Your task to perform on an android device: Go to Wikipedia Image 0: 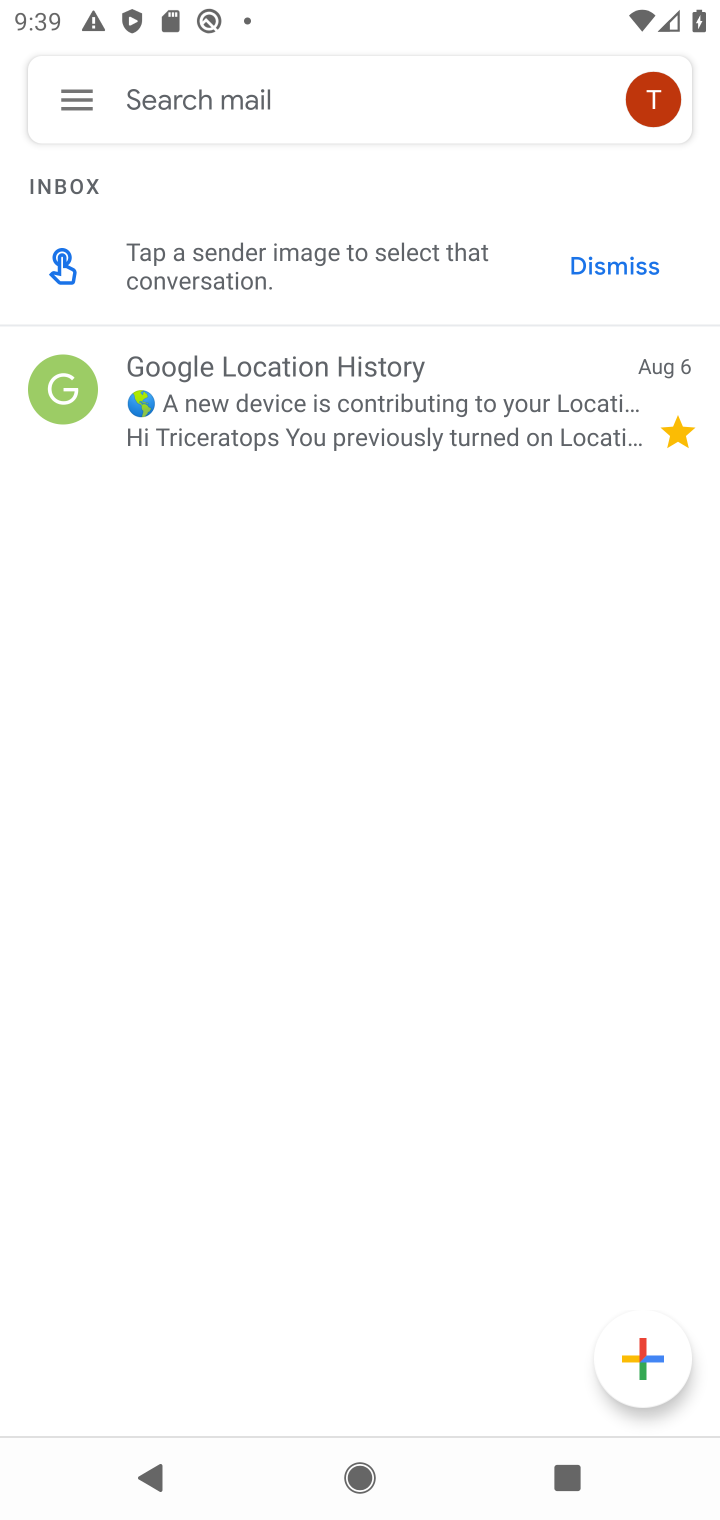
Step 0: press home button
Your task to perform on an android device: Go to Wikipedia Image 1: 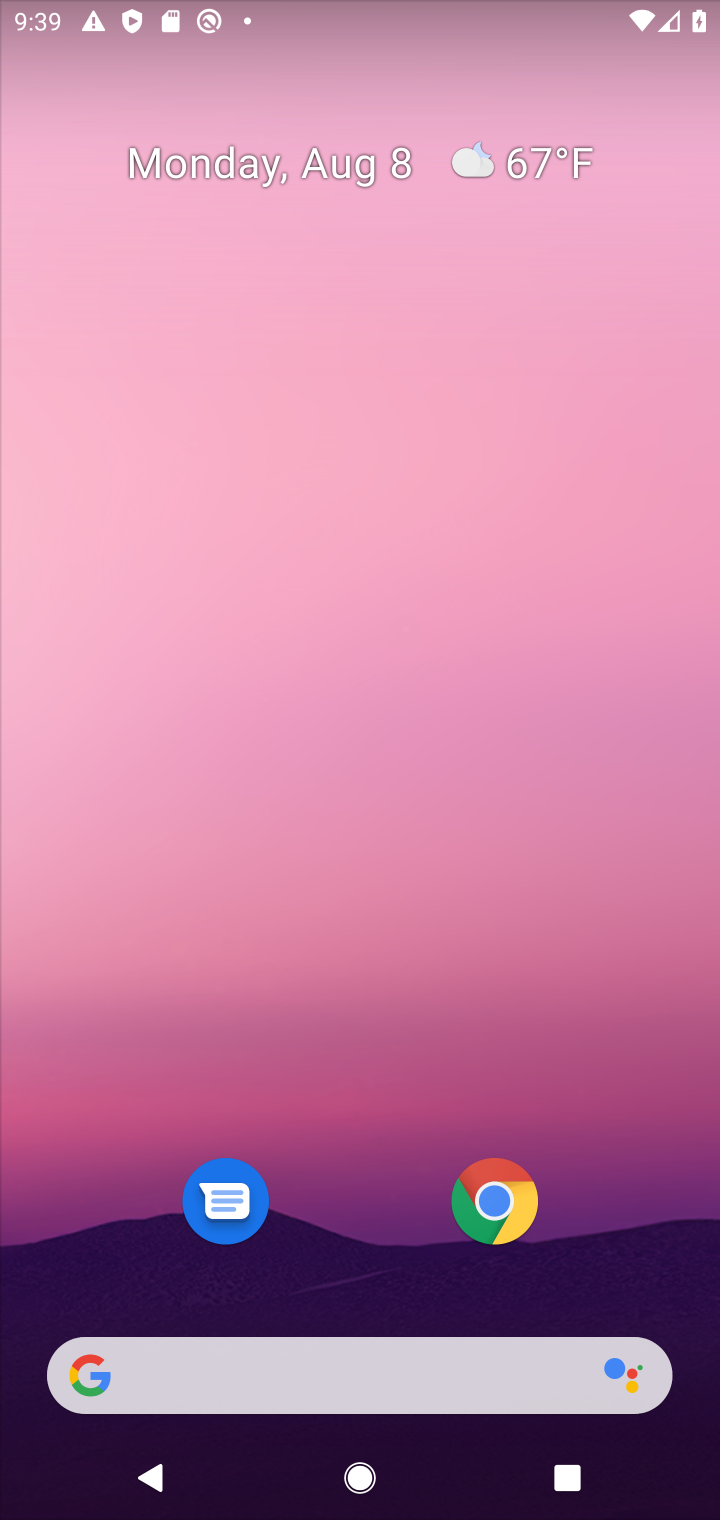
Step 1: drag from (360, 1234) to (358, 457)
Your task to perform on an android device: Go to Wikipedia Image 2: 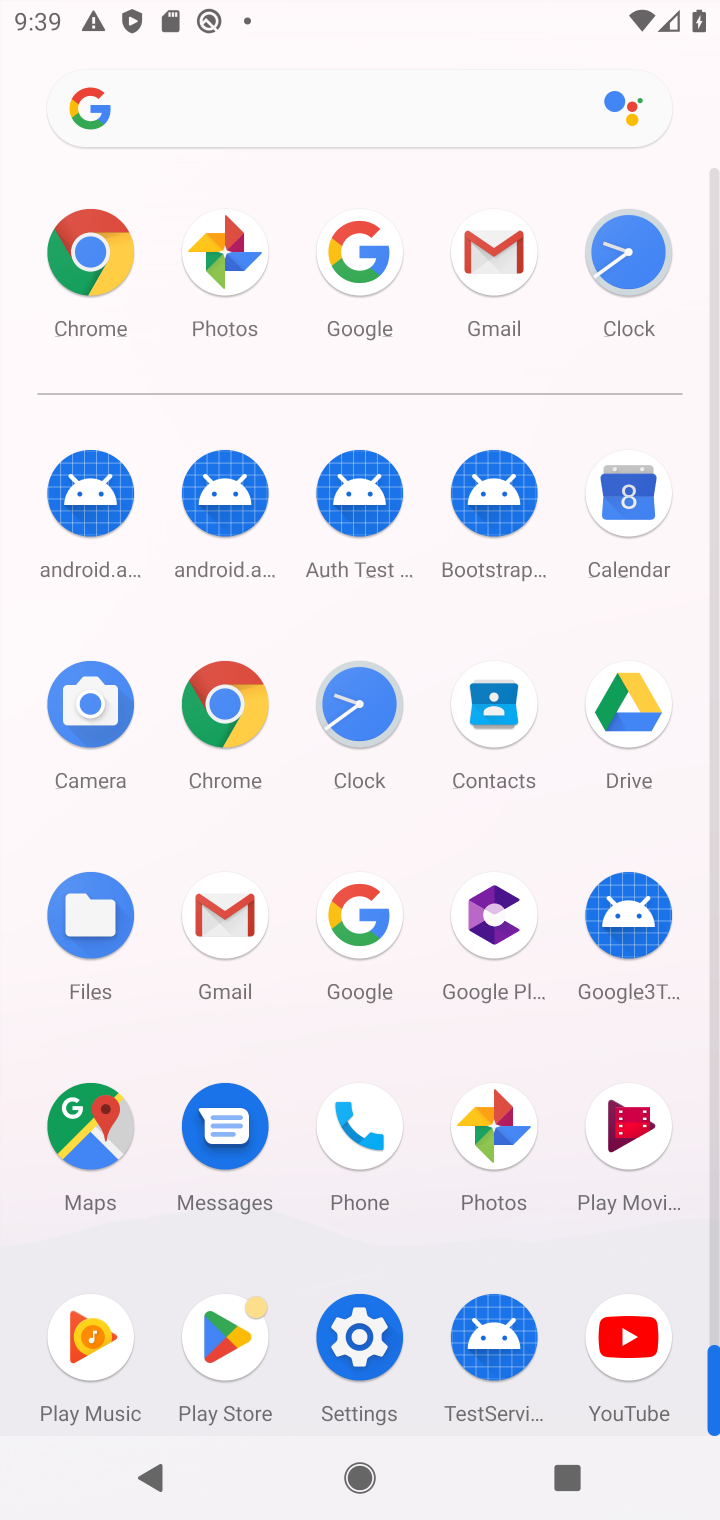
Step 2: click (232, 705)
Your task to perform on an android device: Go to Wikipedia Image 3: 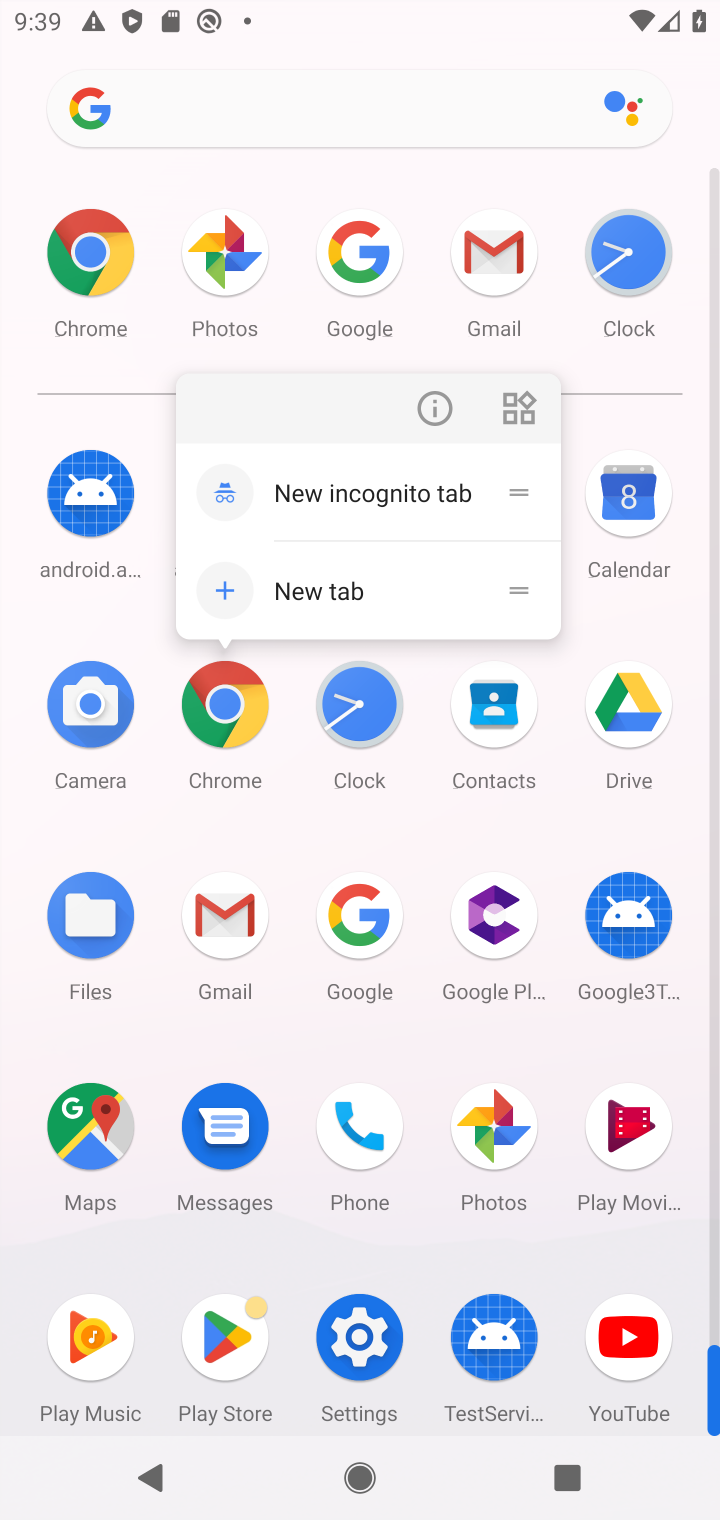
Step 3: click (232, 705)
Your task to perform on an android device: Go to Wikipedia Image 4: 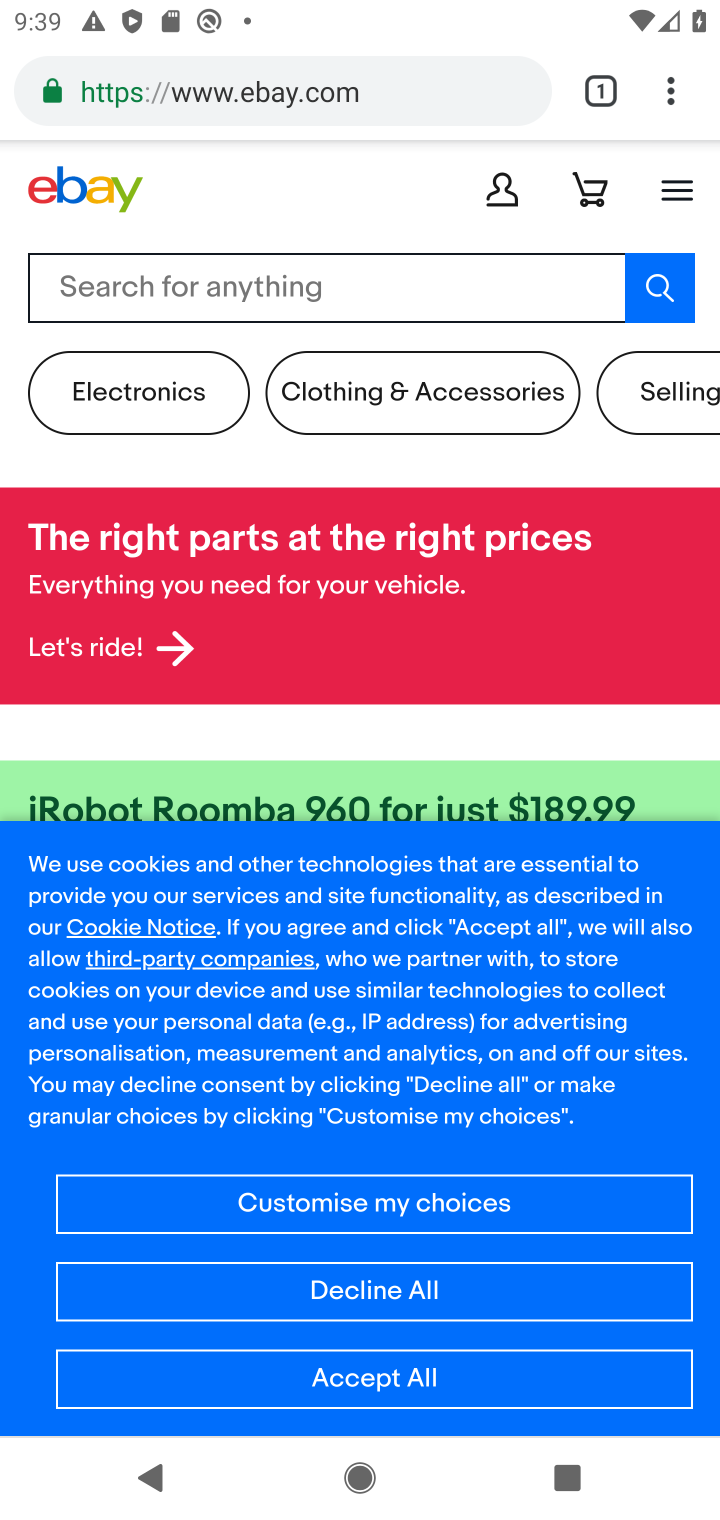
Step 4: click (402, 84)
Your task to perform on an android device: Go to Wikipedia Image 5: 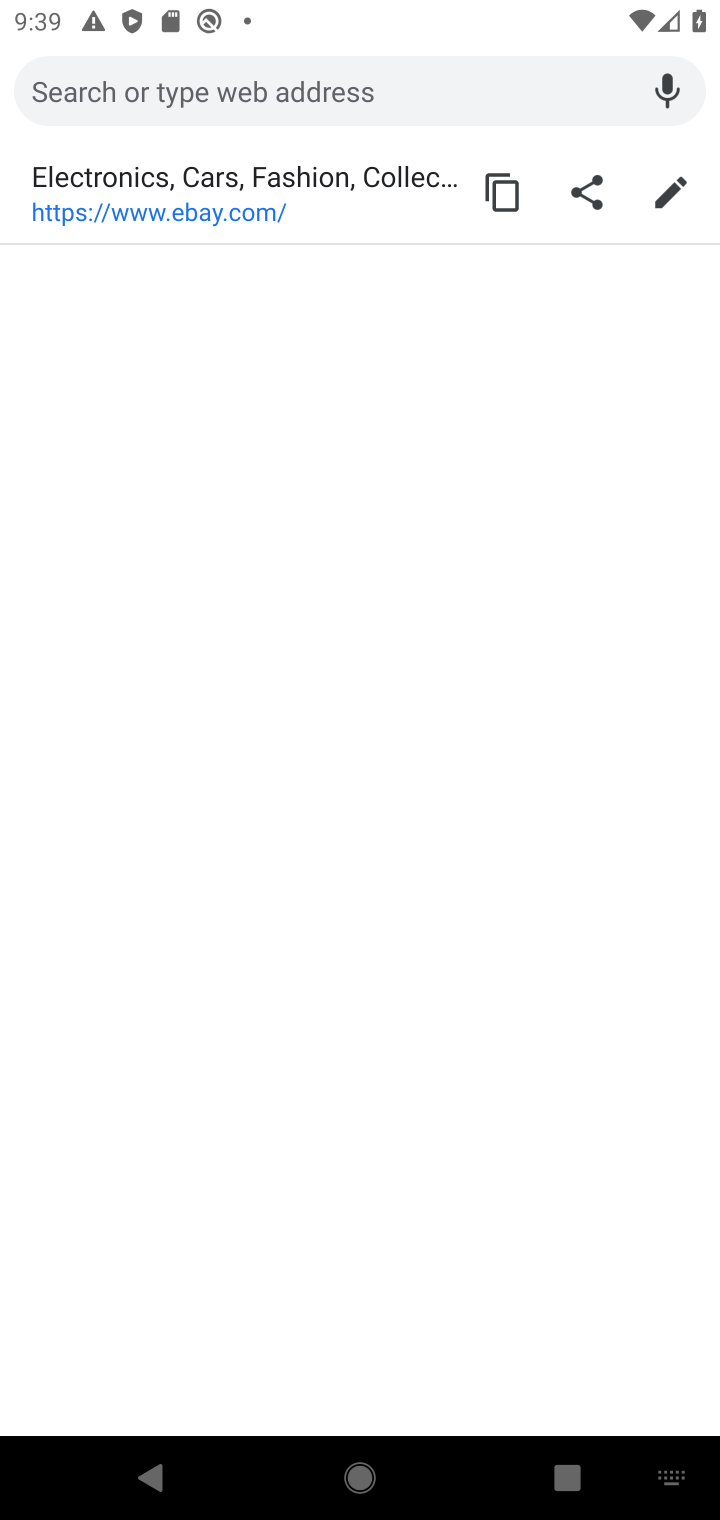
Step 5: type "wikipedia"
Your task to perform on an android device: Go to Wikipedia Image 6: 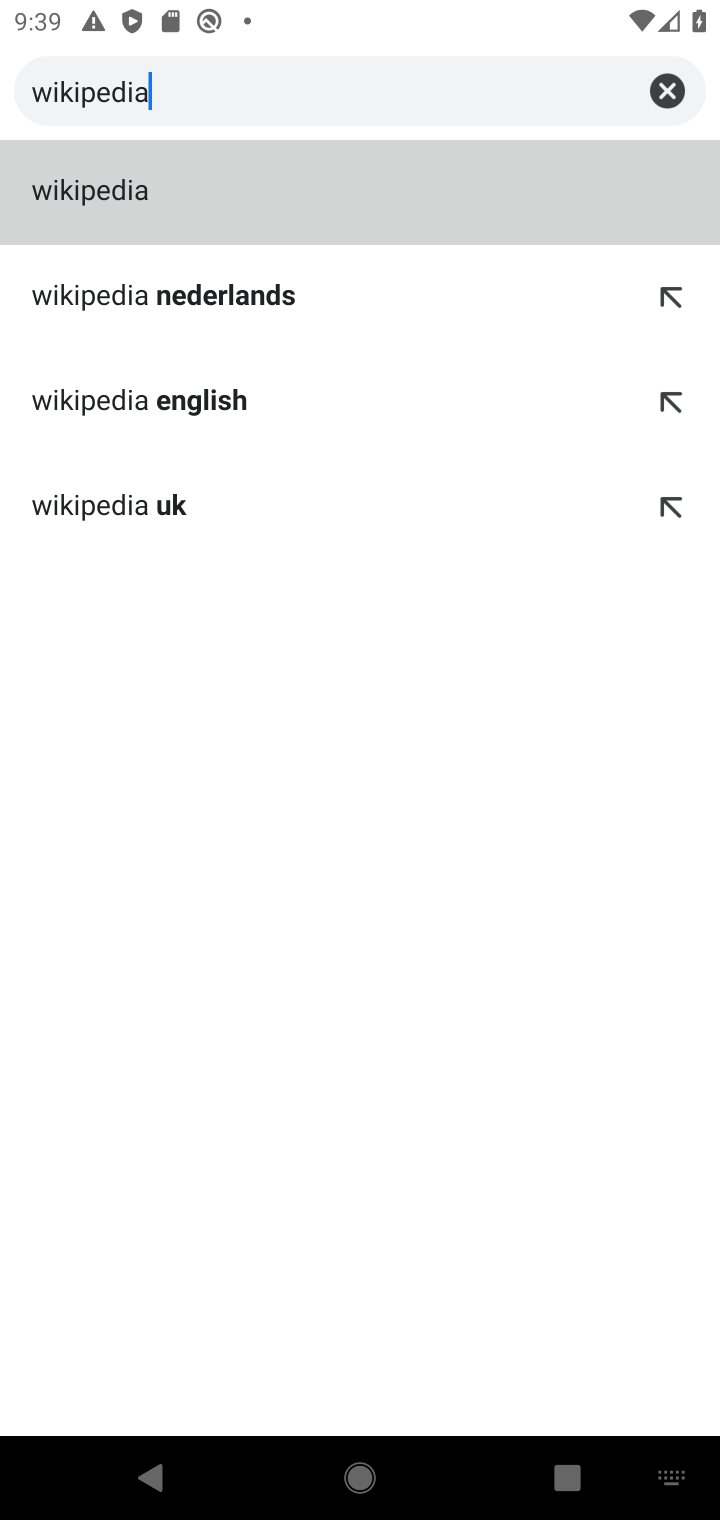
Step 6: click (369, 195)
Your task to perform on an android device: Go to Wikipedia Image 7: 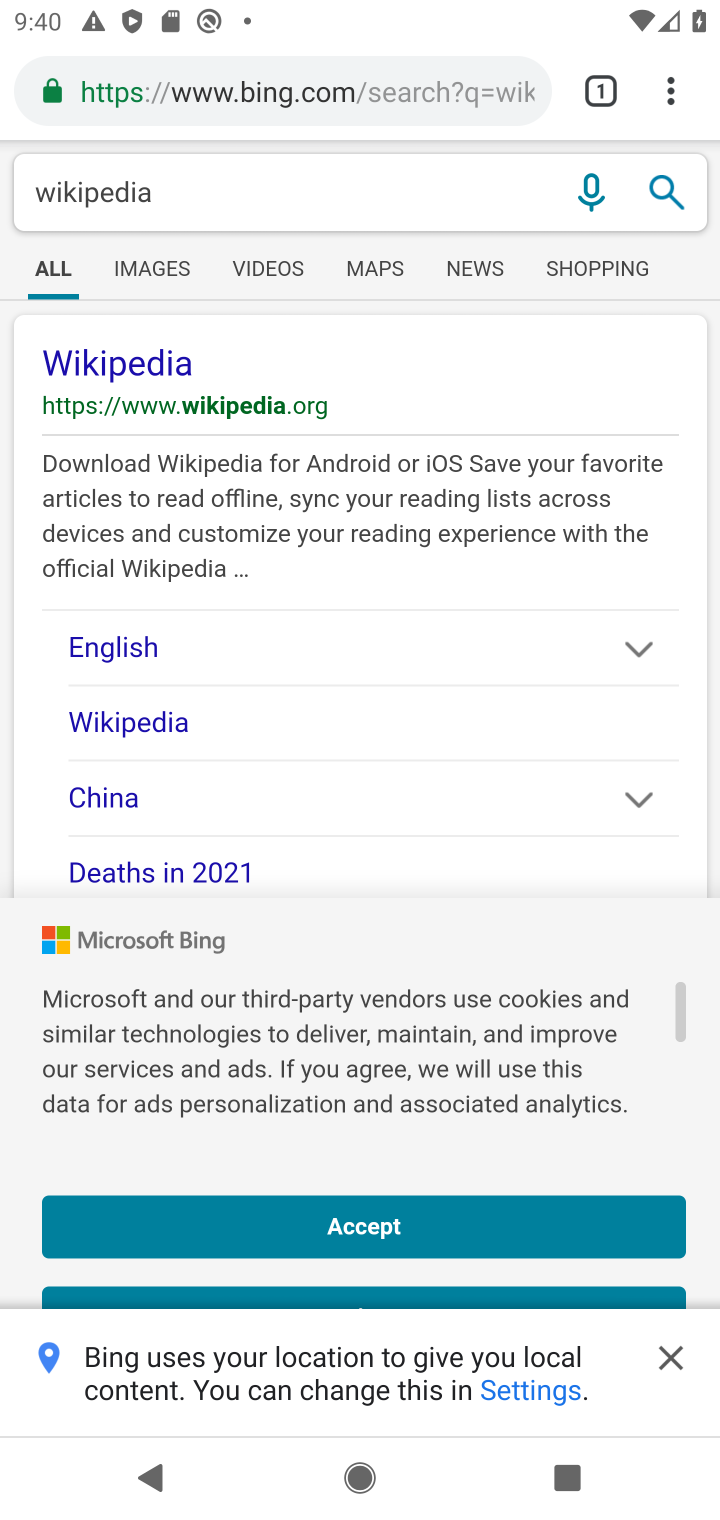
Step 7: task complete